Your task to perform on an android device: turn on location history Image 0: 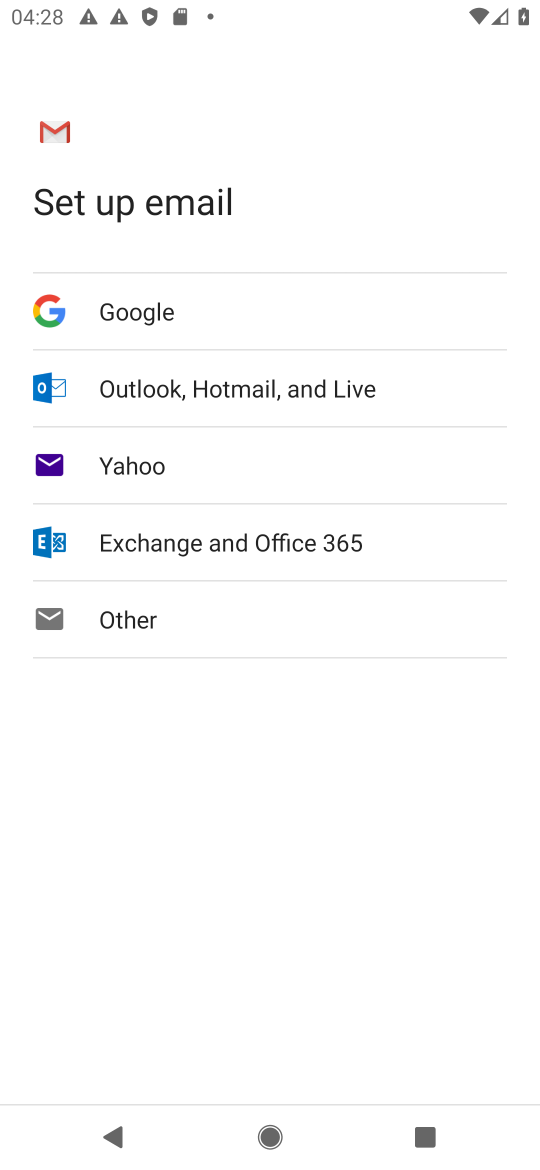
Step 0: press home button
Your task to perform on an android device: turn on location history Image 1: 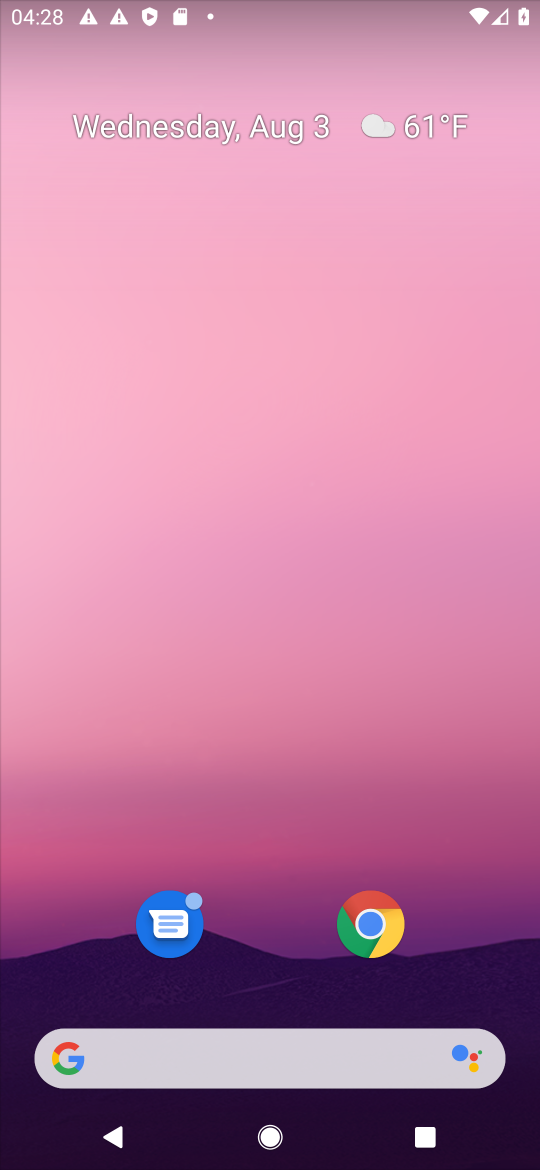
Step 1: drag from (273, 993) to (293, 442)
Your task to perform on an android device: turn on location history Image 2: 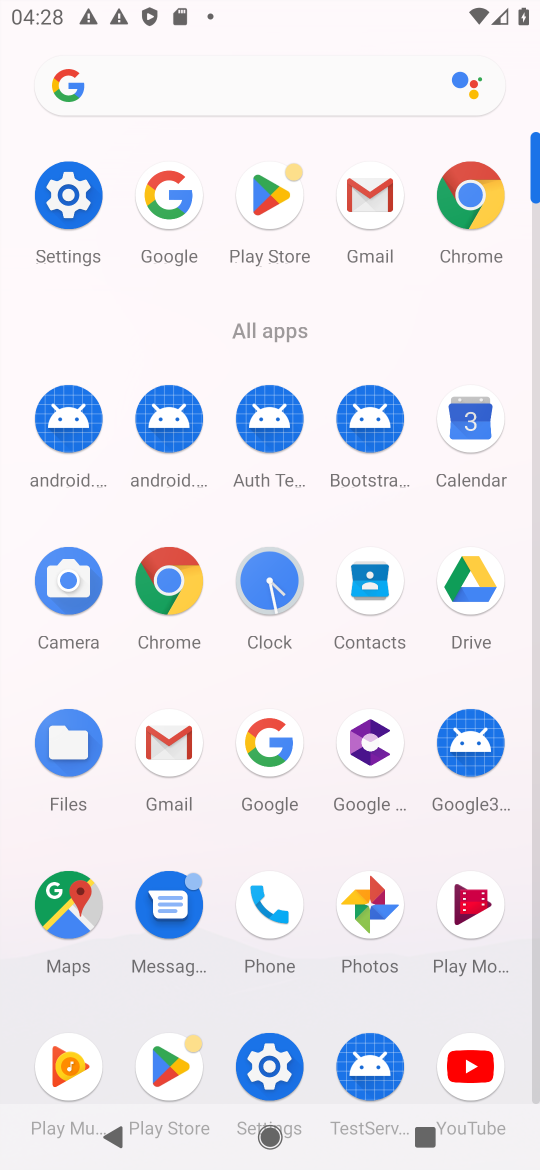
Step 2: click (44, 188)
Your task to perform on an android device: turn on location history Image 3: 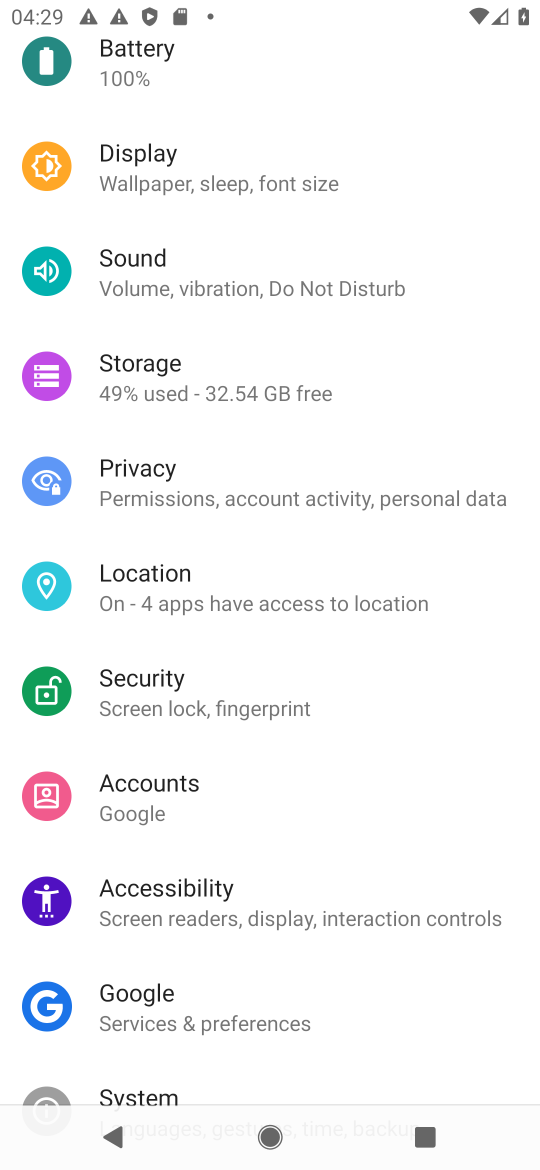
Step 3: click (196, 604)
Your task to perform on an android device: turn on location history Image 4: 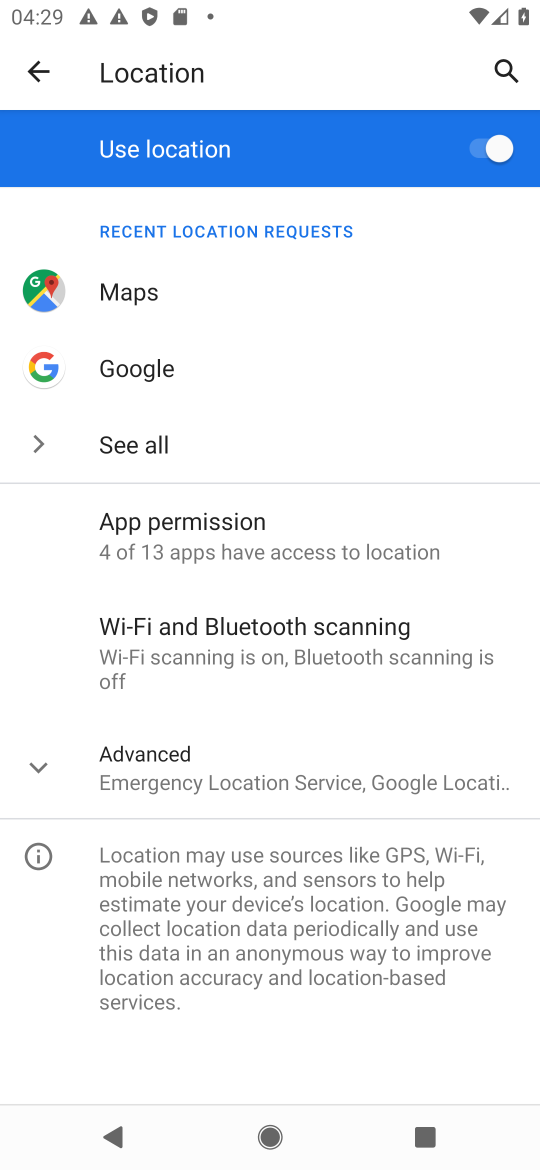
Step 4: click (212, 767)
Your task to perform on an android device: turn on location history Image 5: 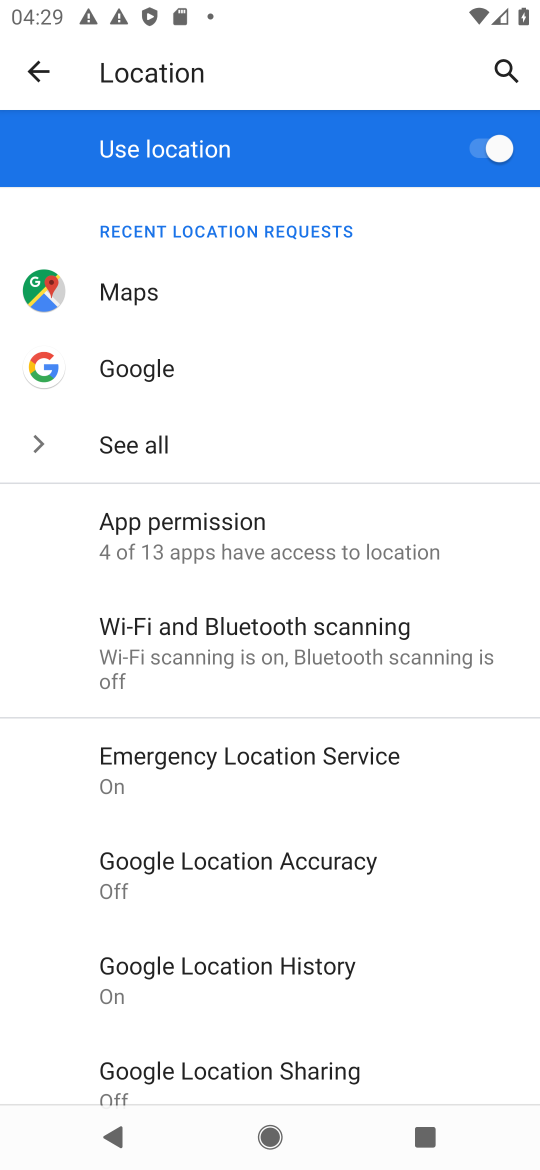
Step 5: click (259, 967)
Your task to perform on an android device: turn on location history Image 6: 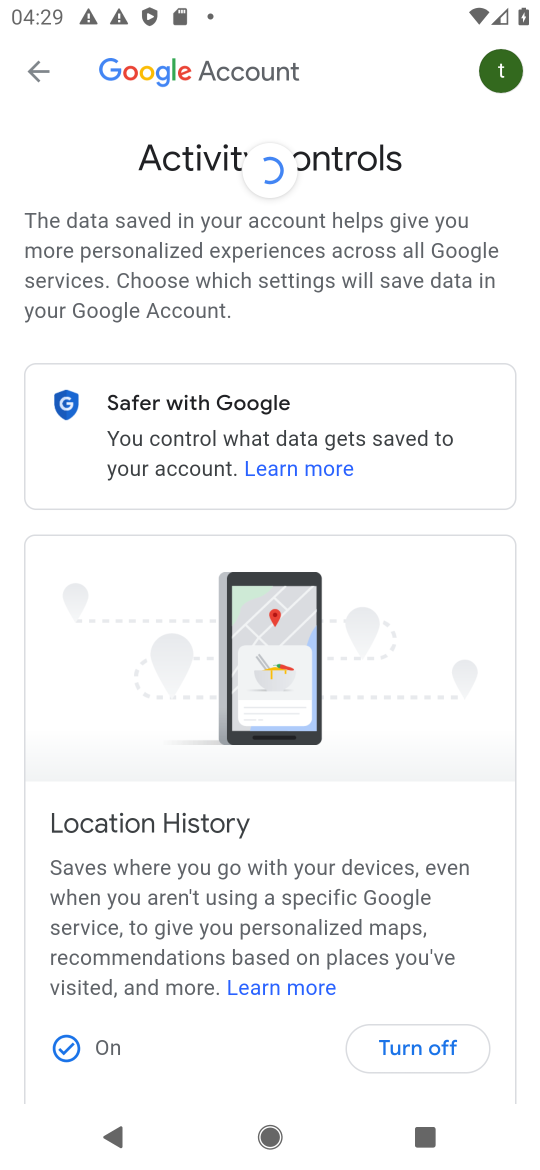
Step 6: task complete